Your task to perform on an android device: set default search engine in the chrome app Image 0: 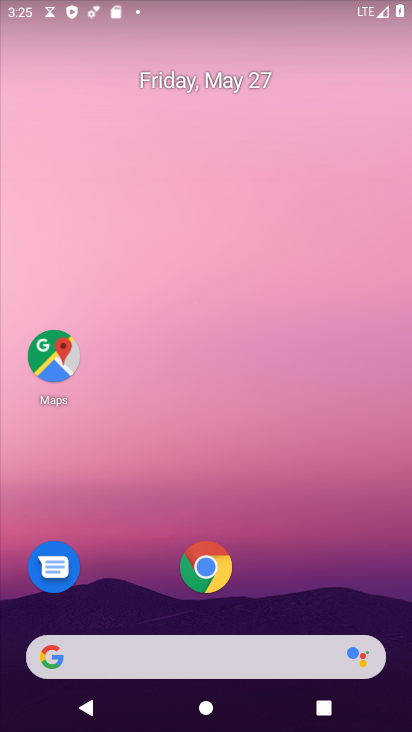
Step 0: click (204, 577)
Your task to perform on an android device: set default search engine in the chrome app Image 1: 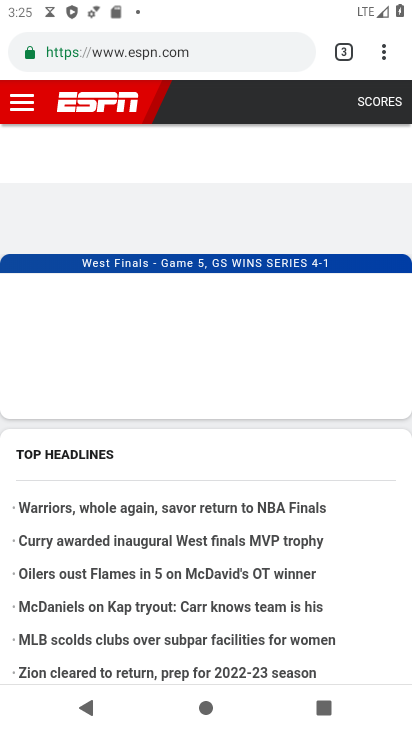
Step 1: drag from (384, 51) to (197, 603)
Your task to perform on an android device: set default search engine in the chrome app Image 2: 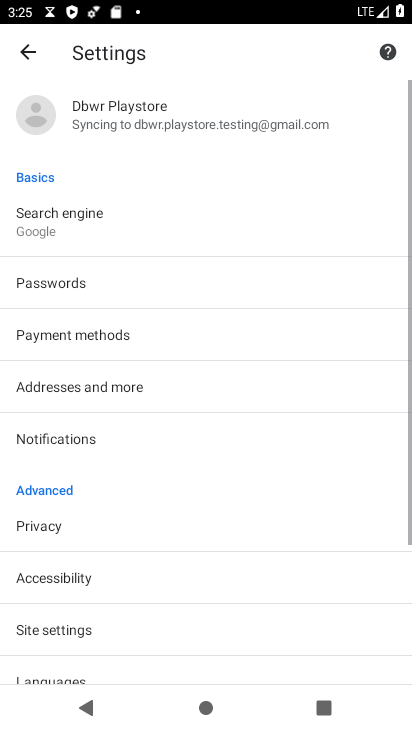
Step 2: drag from (128, 643) to (183, 206)
Your task to perform on an android device: set default search engine in the chrome app Image 3: 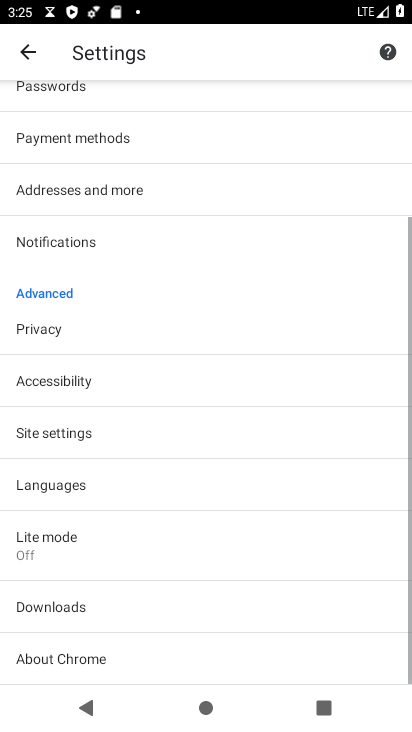
Step 3: click (24, 542)
Your task to perform on an android device: set default search engine in the chrome app Image 4: 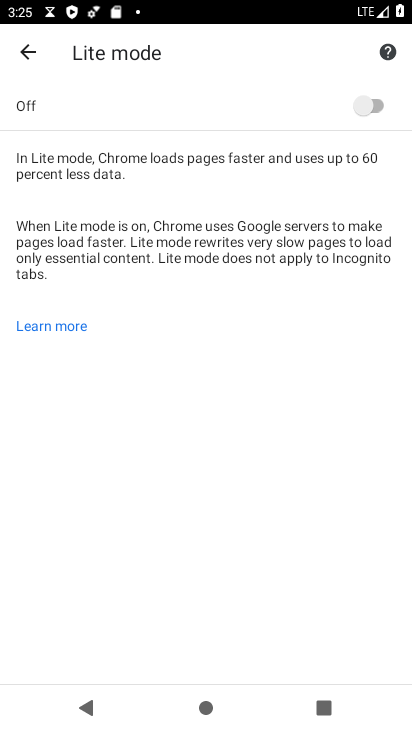
Step 4: click (23, 59)
Your task to perform on an android device: set default search engine in the chrome app Image 5: 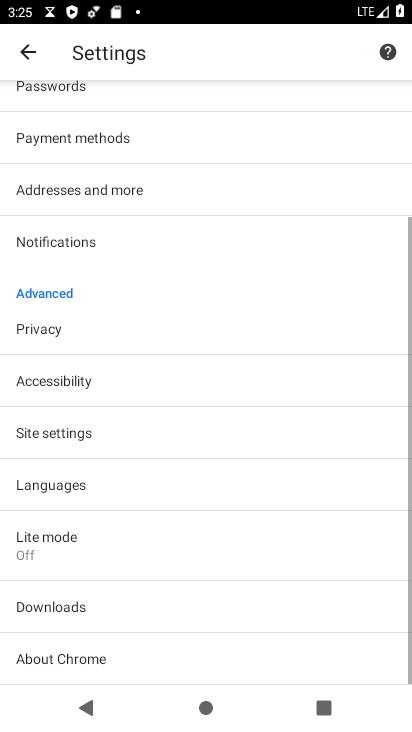
Step 5: drag from (145, 218) to (88, 715)
Your task to perform on an android device: set default search engine in the chrome app Image 6: 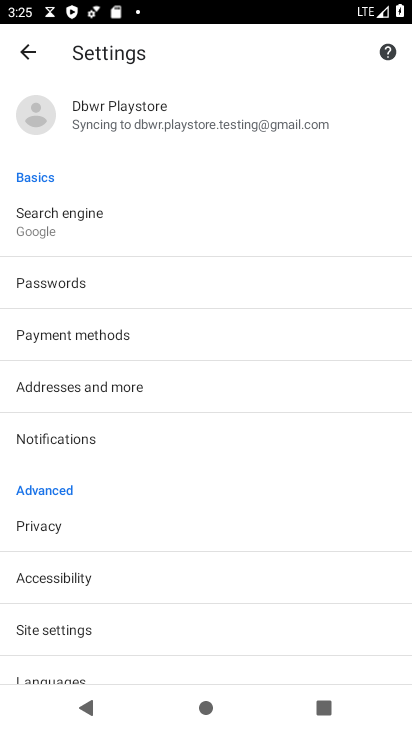
Step 6: click (67, 221)
Your task to perform on an android device: set default search engine in the chrome app Image 7: 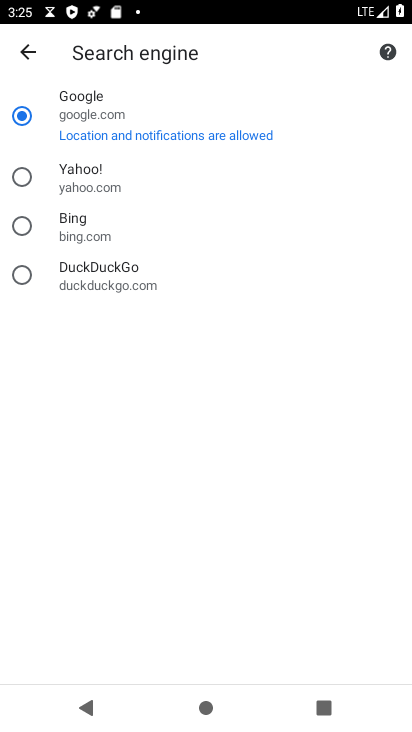
Step 7: click (59, 167)
Your task to perform on an android device: set default search engine in the chrome app Image 8: 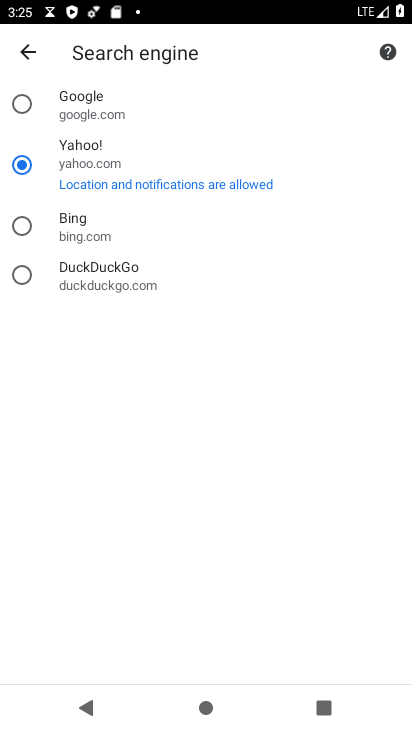
Step 8: task complete